Your task to perform on an android device: change the clock style Image 0: 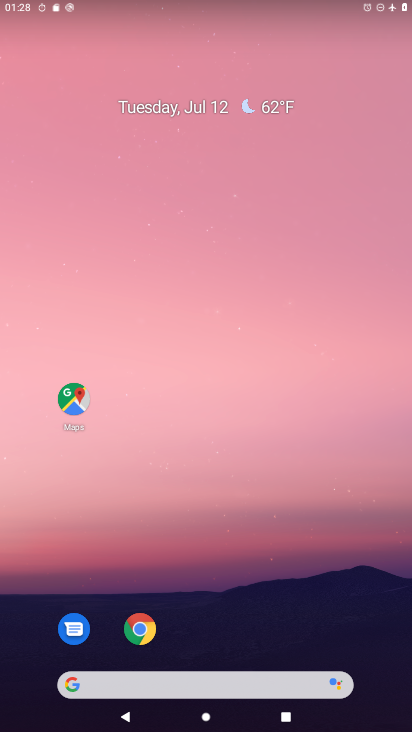
Step 0: drag from (250, 585) to (294, 51)
Your task to perform on an android device: change the clock style Image 1: 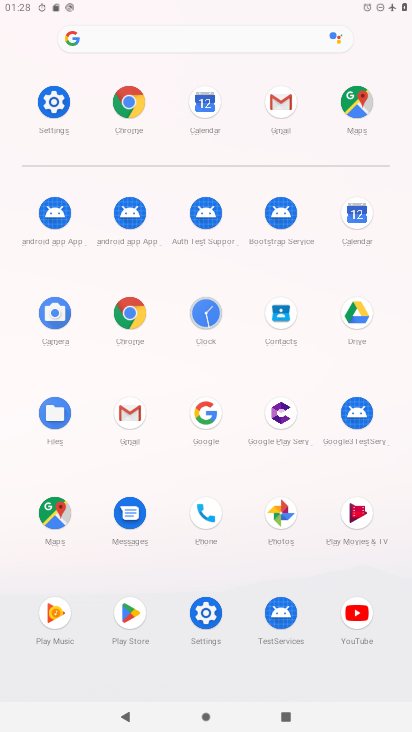
Step 1: click (205, 318)
Your task to perform on an android device: change the clock style Image 2: 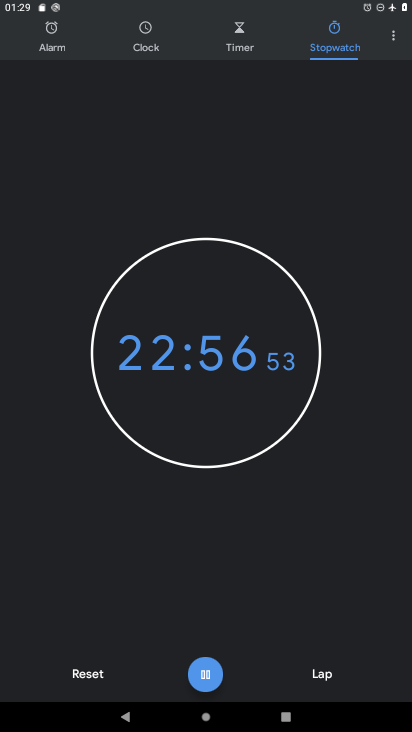
Step 2: click (388, 35)
Your task to perform on an android device: change the clock style Image 3: 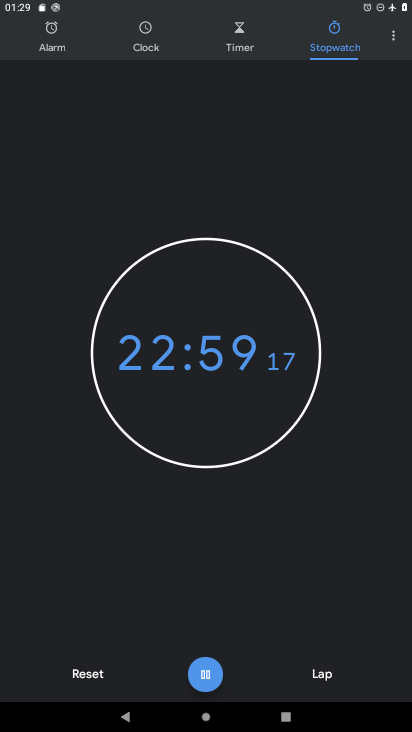
Step 3: click (391, 42)
Your task to perform on an android device: change the clock style Image 4: 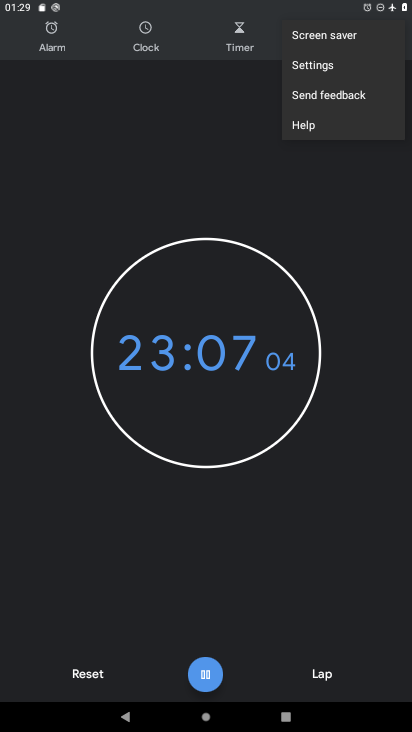
Step 4: click (312, 73)
Your task to perform on an android device: change the clock style Image 5: 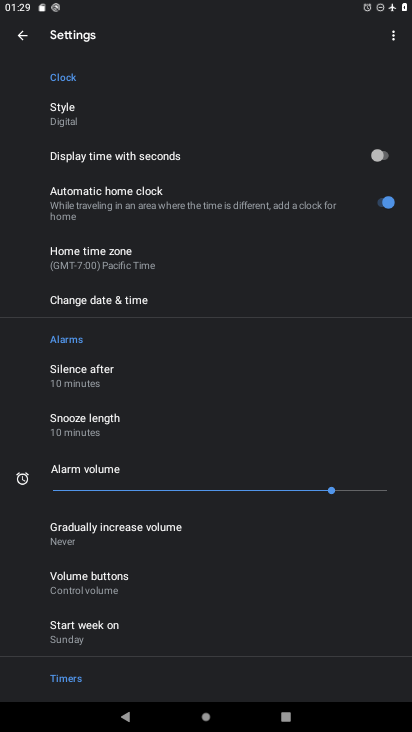
Step 5: click (79, 115)
Your task to perform on an android device: change the clock style Image 6: 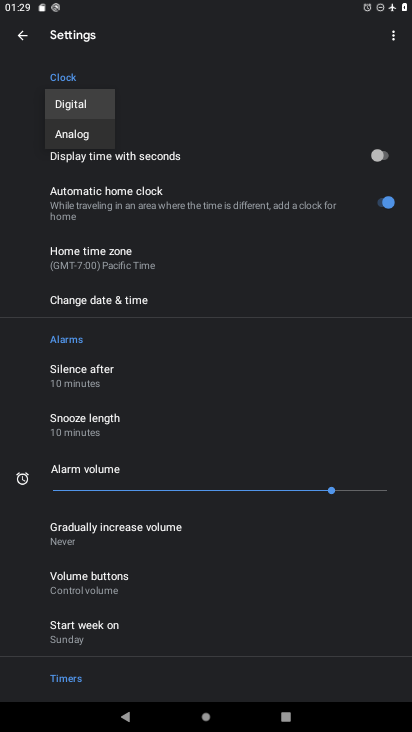
Step 6: click (108, 129)
Your task to perform on an android device: change the clock style Image 7: 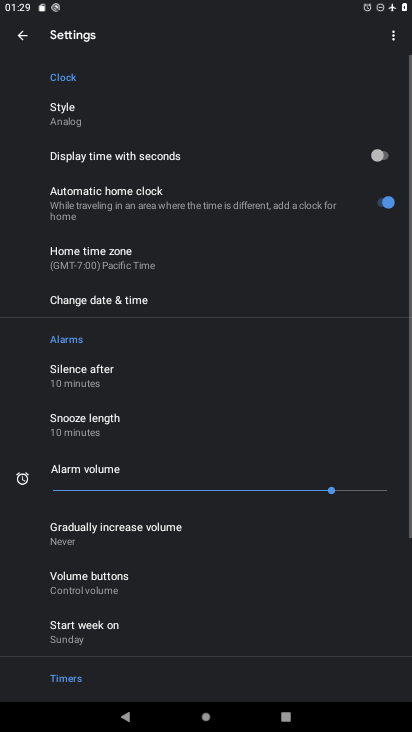
Step 7: task complete